Your task to perform on an android device: refresh tabs in the chrome app Image 0: 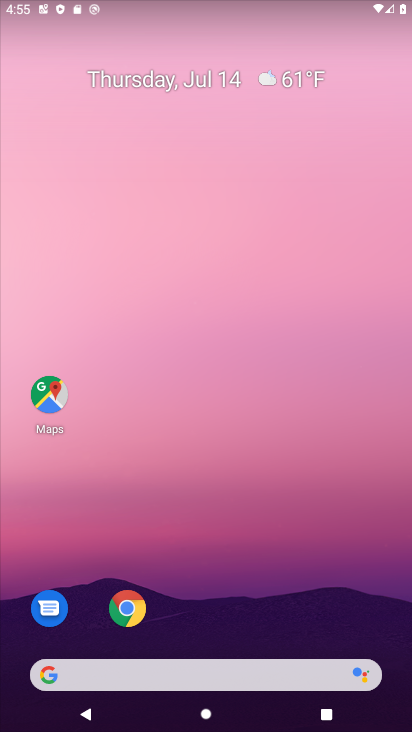
Step 0: drag from (275, 425) to (222, 106)
Your task to perform on an android device: refresh tabs in the chrome app Image 1: 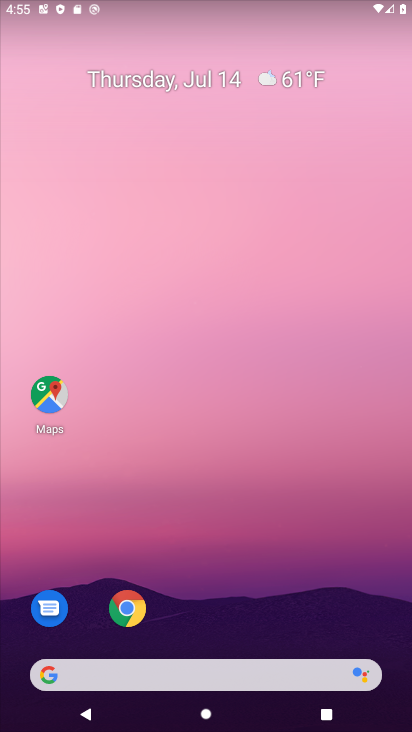
Step 1: drag from (278, 577) to (263, 147)
Your task to perform on an android device: refresh tabs in the chrome app Image 2: 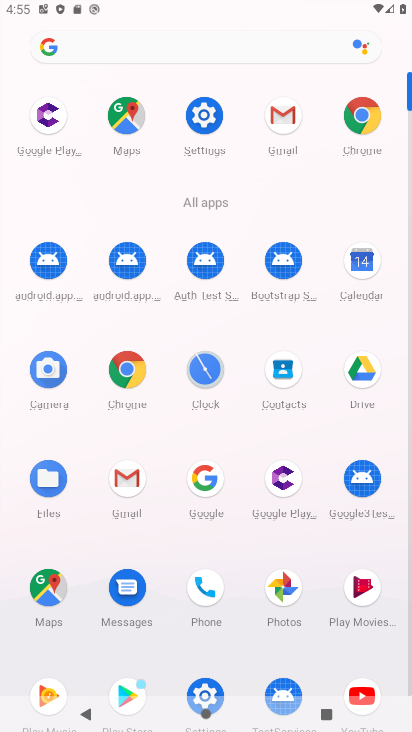
Step 2: click (130, 366)
Your task to perform on an android device: refresh tabs in the chrome app Image 3: 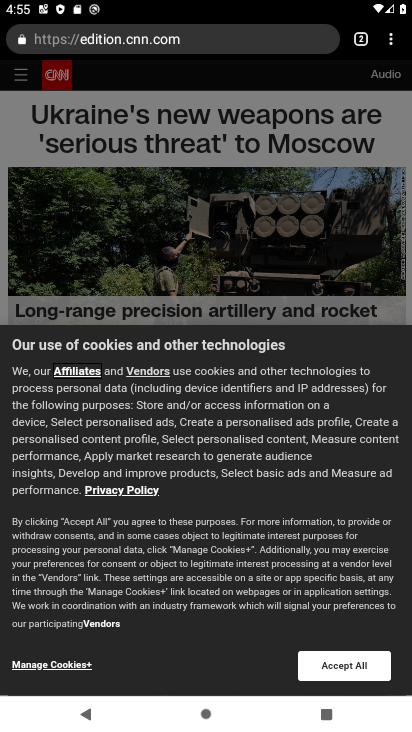
Step 3: task complete